Your task to perform on an android device: turn on showing notifications on the lock screen Image 0: 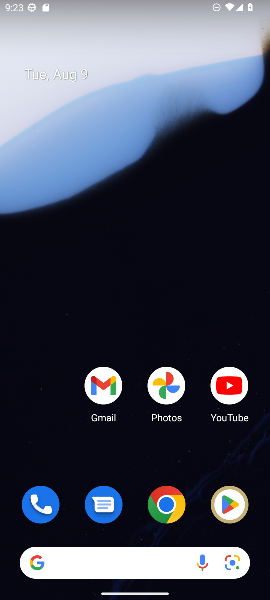
Step 0: drag from (133, 464) to (128, 153)
Your task to perform on an android device: turn on showing notifications on the lock screen Image 1: 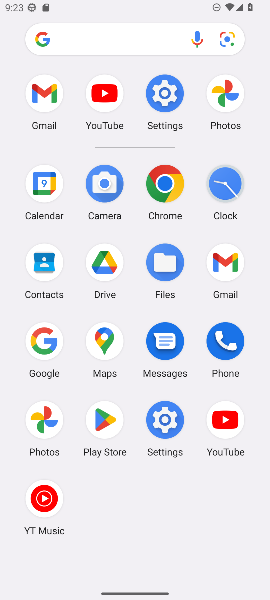
Step 1: click (166, 93)
Your task to perform on an android device: turn on showing notifications on the lock screen Image 2: 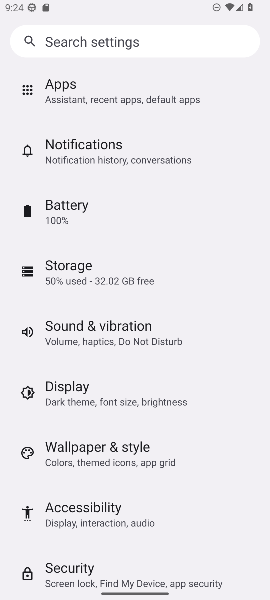
Step 2: drag from (181, 501) to (187, 233)
Your task to perform on an android device: turn on showing notifications on the lock screen Image 3: 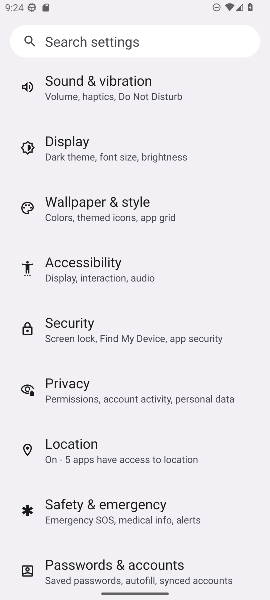
Step 3: drag from (196, 139) to (177, 431)
Your task to perform on an android device: turn on showing notifications on the lock screen Image 4: 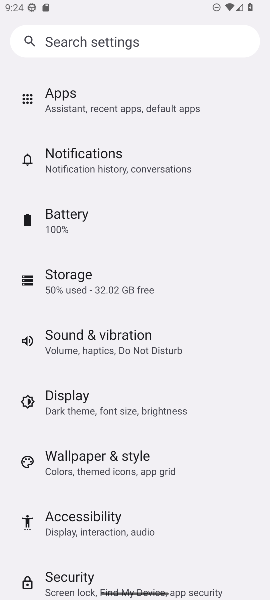
Step 4: click (73, 155)
Your task to perform on an android device: turn on showing notifications on the lock screen Image 5: 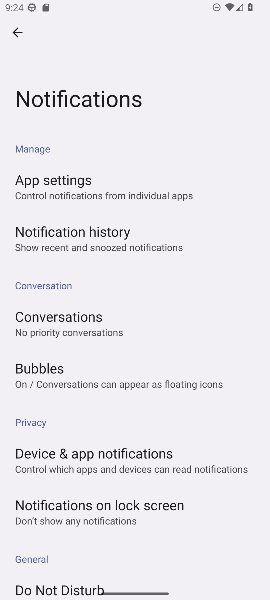
Step 5: click (105, 505)
Your task to perform on an android device: turn on showing notifications on the lock screen Image 6: 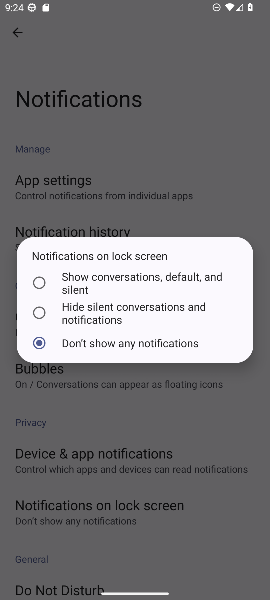
Step 6: click (35, 287)
Your task to perform on an android device: turn on showing notifications on the lock screen Image 7: 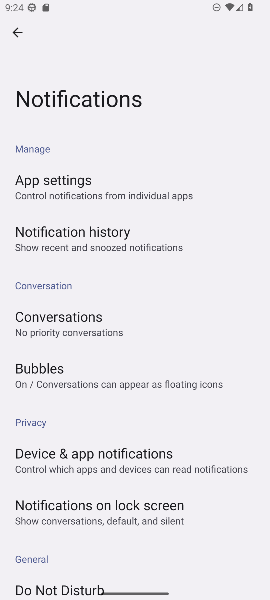
Step 7: task complete